Your task to perform on an android device: turn on notifications settings in the gmail app Image 0: 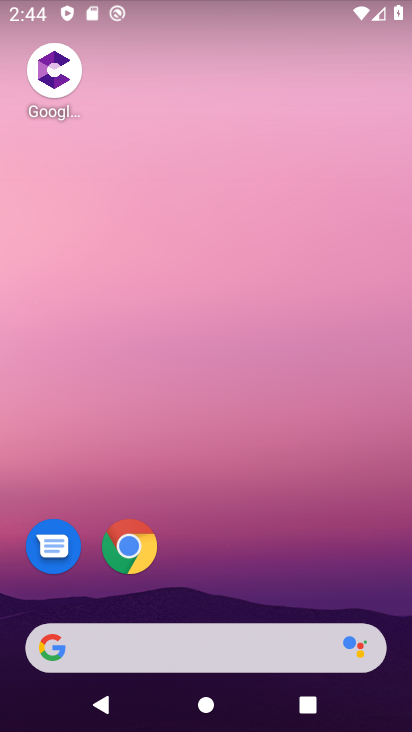
Step 0: drag from (203, 546) to (298, 156)
Your task to perform on an android device: turn on notifications settings in the gmail app Image 1: 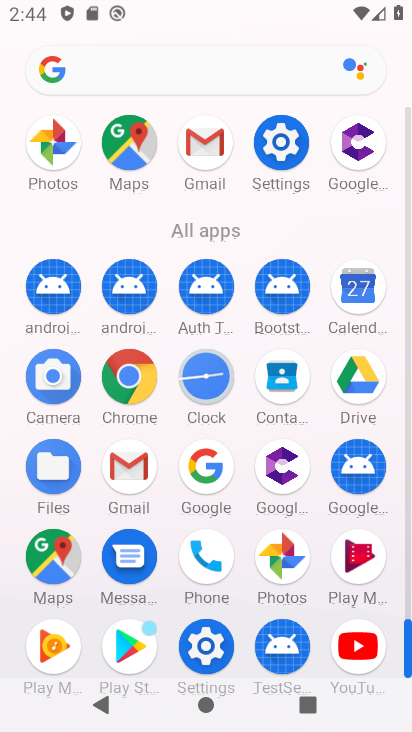
Step 1: click (133, 466)
Your task to perform on an android device: turn on notifications settings in the gmail app Image 2: 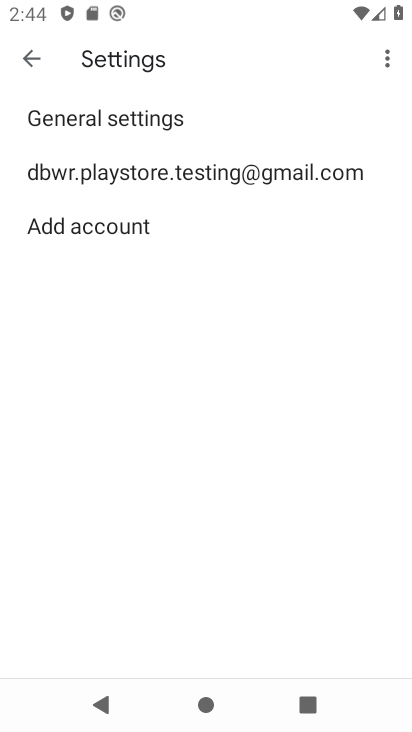
Step 2: click (156, 176)
Your task to perform on an android device: turn on notifications settings in the gmail app Image 3: 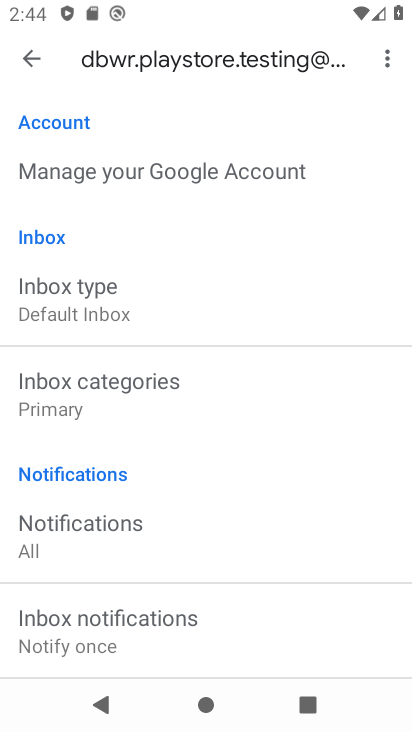
Step 3: drag from (184, 562) to (305, 247)
Your task to perform on an android device: turn on notifications settings in the gmail app Image 4: 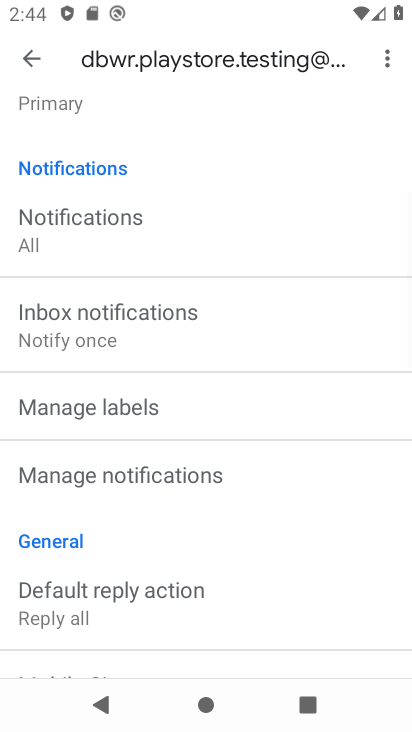
Step 4: drag from (260, 481) to (325, 272)
Your task to perform on an android device: turn on notifications settings in the gmail app Image 5: 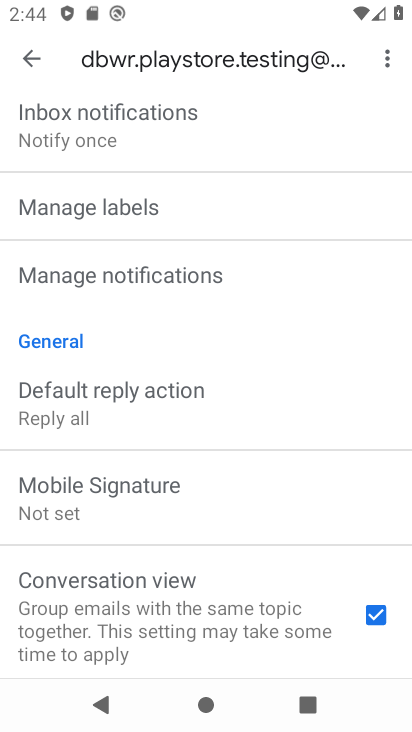
Step 5: drag from (206, 208) to (214, 463)
Your task to perform on an android device: turn on notifications settings in the gmail app Image 6: 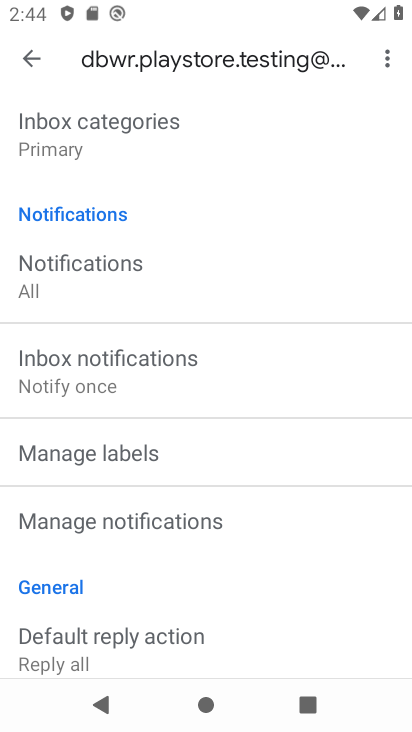
Step 6: click (210, 523)
Your task to perform on an android device: turn on notifications settings in the gmail app Image 7: 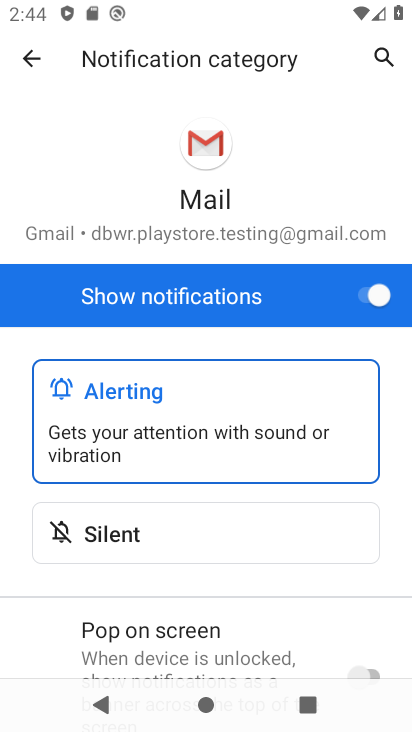
Step 7: task complete